Your task to perform on an android device: Go to Reddit.com Image 0: 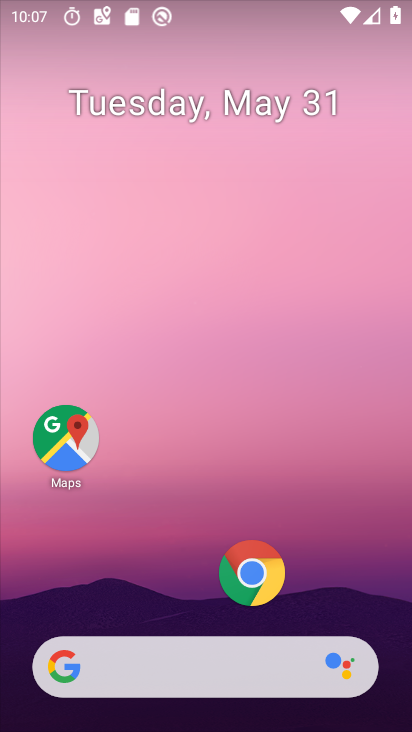
Step 0: click (253, 574)
Your task to perform on an android device: Go to Reddit.com Image 1: 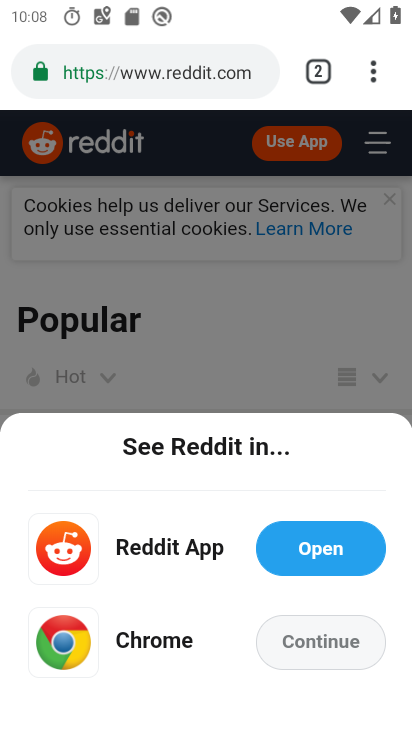
Step 1: task complete